Your task to perform on an android device: change your default location settings in chrome Image 0: 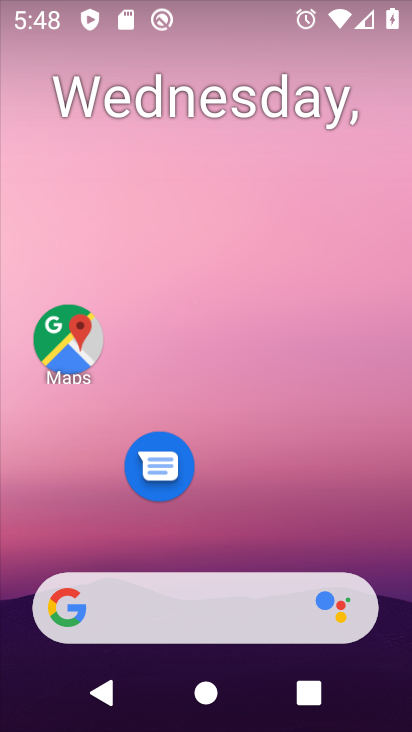
Step 0: drag from (344, 477) to (331, 124)
Your task to perform on an android device: change your default location settings in chrome Image 1: 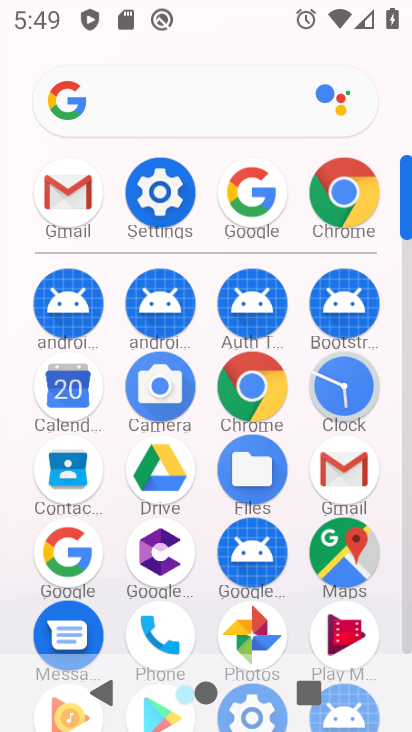
Step 1: click (164, 202)
Your task to perform on an android device: change your default location settings in chrome Image 2: 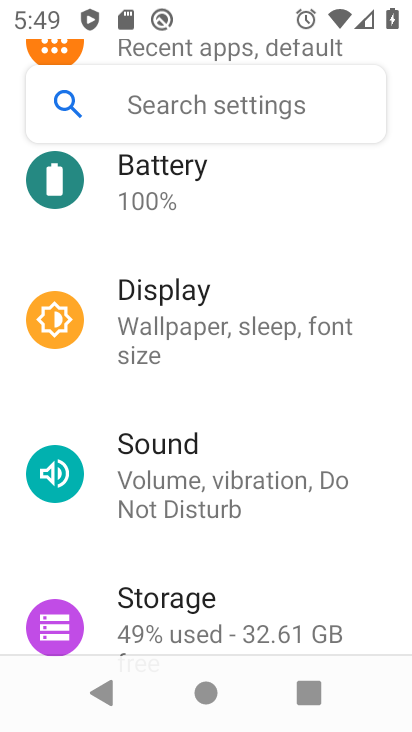
Step 2: drag from (298, 540) to (322, 165)
Your task to perform on an android device: change your default location settings in chrome Image 3: 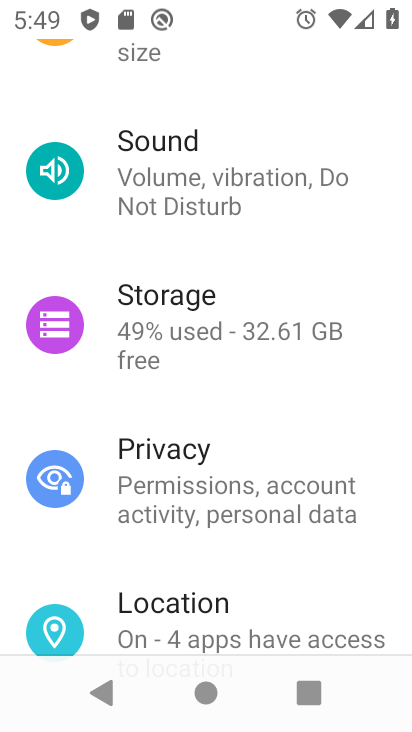
Step 3: press home button
Your task to perform on an android device: change your default location settings in chrome Image 4: 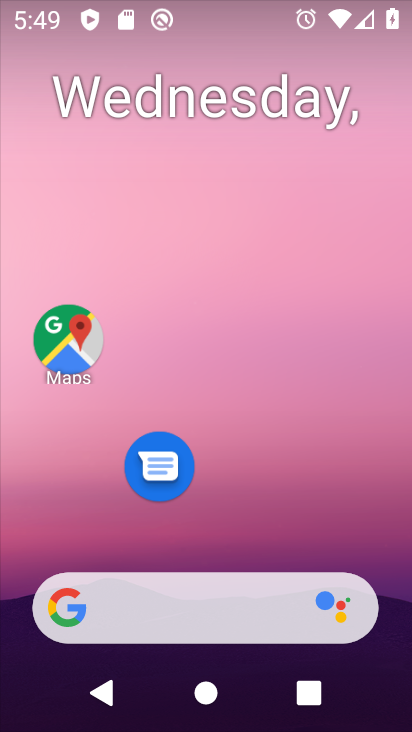
Step 4: drag from (341, 268) to (341, 64)
Your task to perform on an android device: change your default location settings in chrome Image 5: 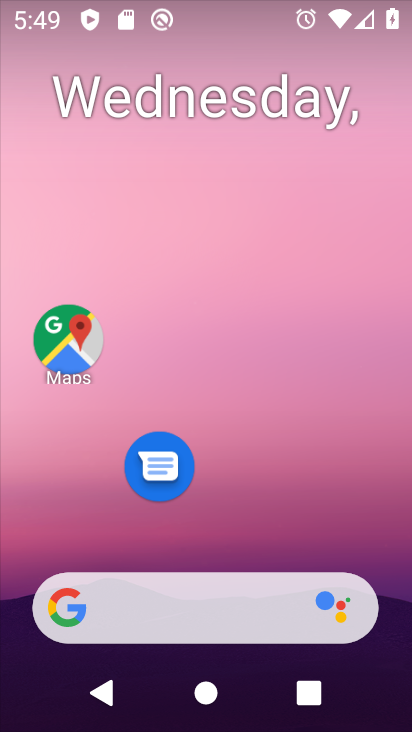
Step 5: drag from (293, 492) to (293, 71)
Your task to perform on an android device: change your default location settings in chrome Image 6: 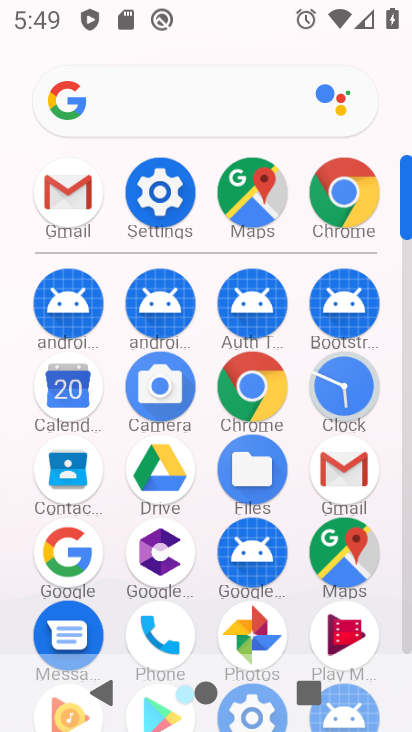
Step 6: click (259, 390)
Your task to perform on an android device: change your default location settings in chrome Image 7: 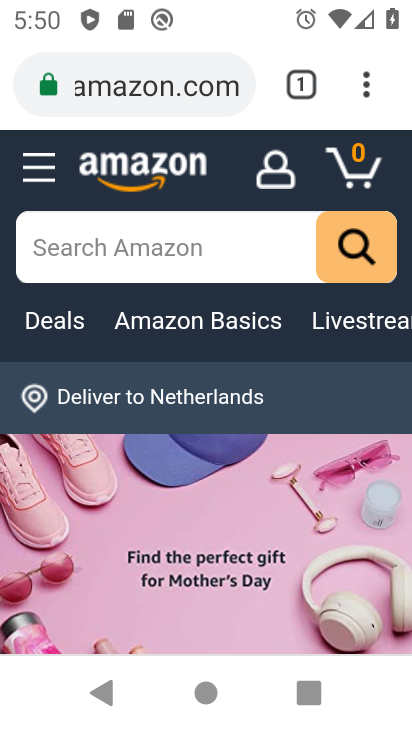
Step 7: drag from (368, 83) to (106, 527)
Your task to perform on an android device: change your default location settings in chrome Image 8: 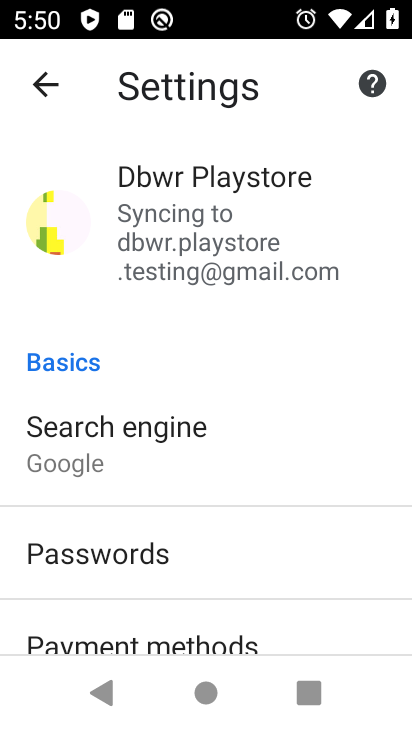
Step 8: drag from (375, 623) to (386, 158)
Your task to perform on an android device: change your default location settings in chrome Image 9: 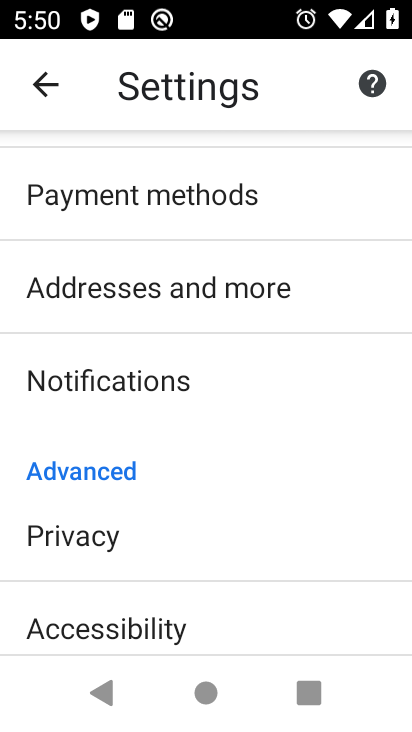
Step 9: drag from (285, 550) to (289, 163)
Your task to perform on an android device: change your default location settings in chrome Image 10: 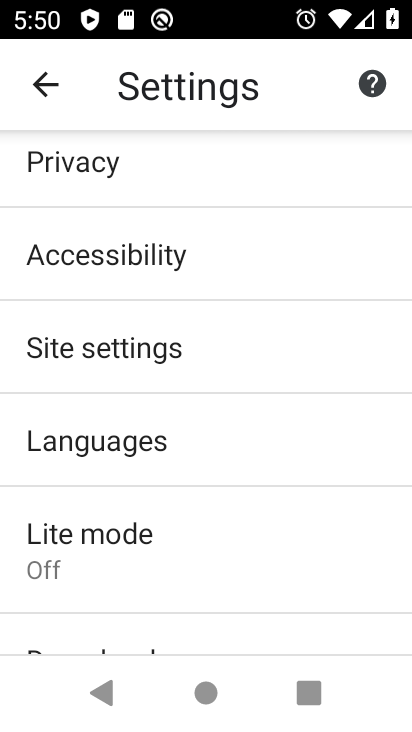
Step 10: drag from (239, 569) to (243, 452)
Your task to perform on an android device: change your default location settings in chrome Image 11: 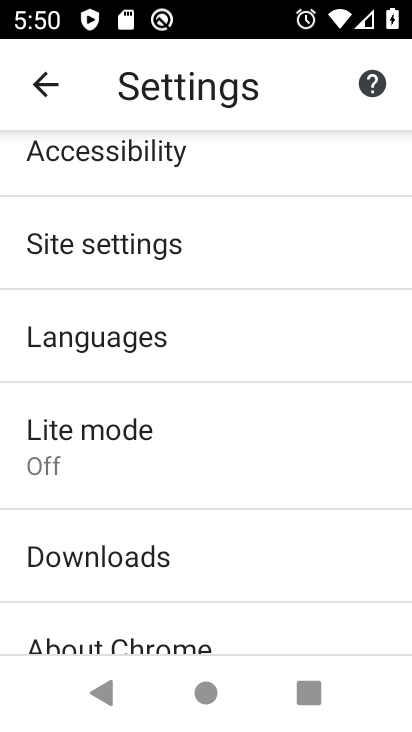
Step 11: click (124, 259)
Your task to perform on an android device: change your default location settings in chrome Image 12: 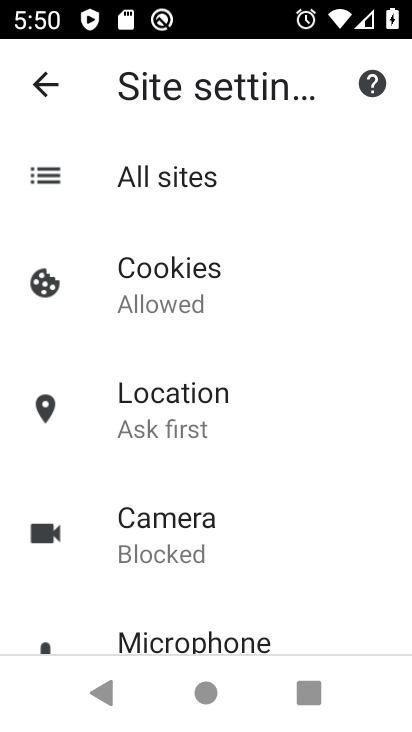
Step 12: click (204, 411)
Your task to perform on an android device: change your default location settings in chrome Image 13: 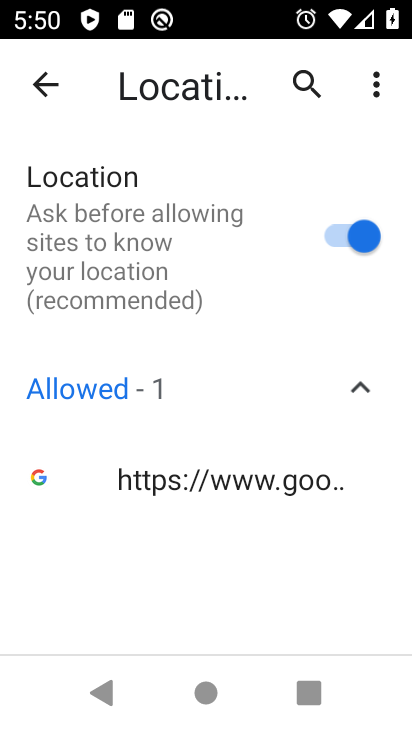
Step 13: click (329, 231)
Your task to perform on an android device: change your default location settings in chrome Image 14: 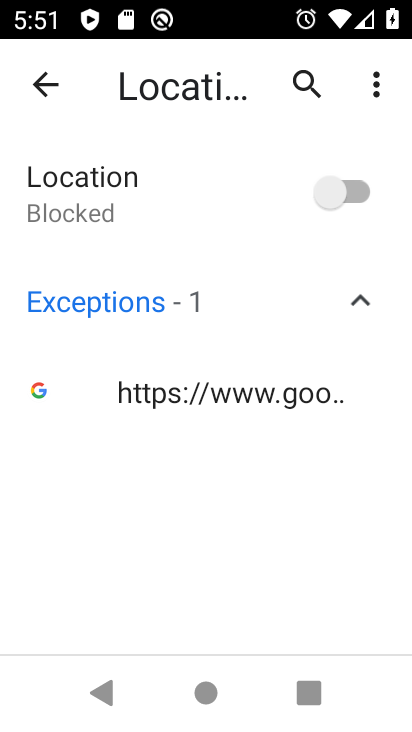
Step 14: task complete